Your task to perform on an android device: Go to Yahoo.com Image 0: 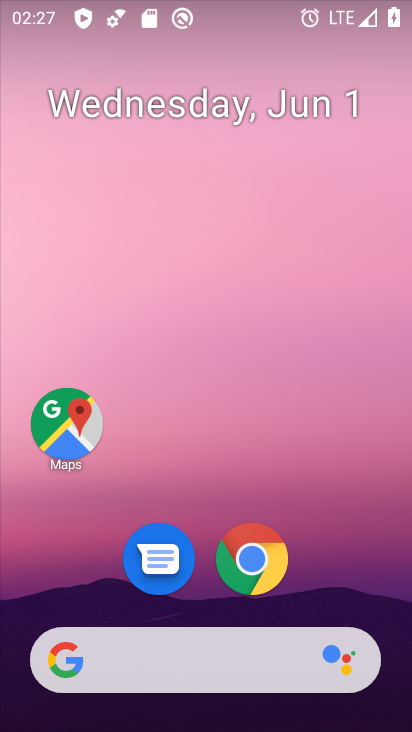
Step 0: press home button
Your task to perform on an android device: Go to Yahoo.com Image 1: 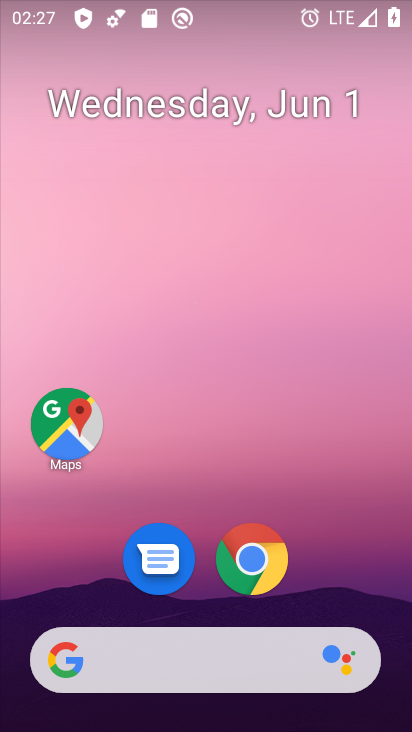
Step 1: click (58, 668)
Your task to perform on an android device: Go to Yahoo.com Image 2: 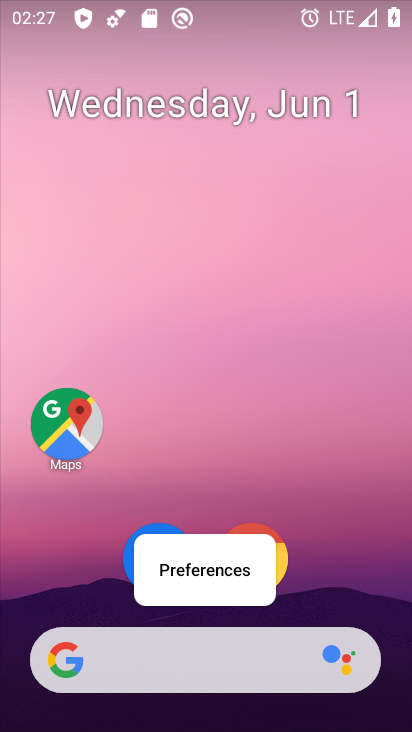
Step 2: click (60, 653)
Your task to perform on an android device: Go to Yahoo.com Image 3: 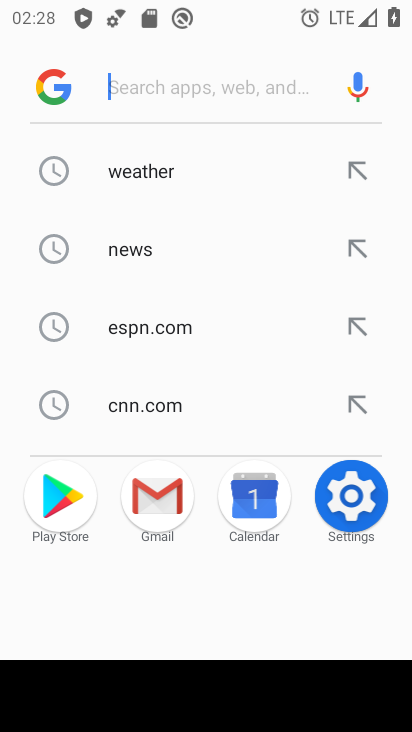
Step 3: type "Yahoo.com"
Your task to perform on an android device: Go to Yahoo.com Image 4: 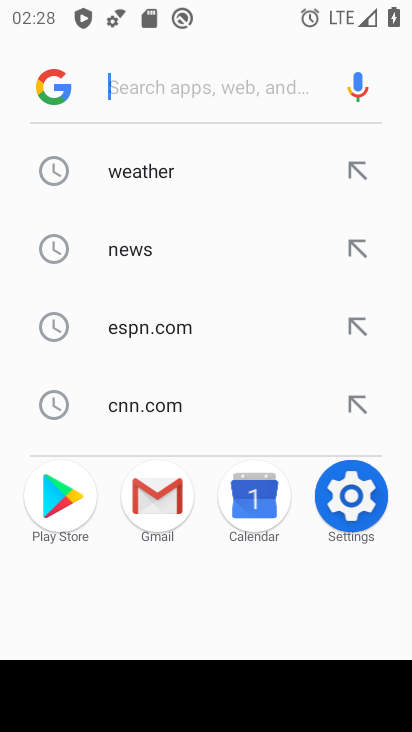
Step 4: click (216, 84)
Your task to perform on an android device: Go to Yahoo.com Image 5: 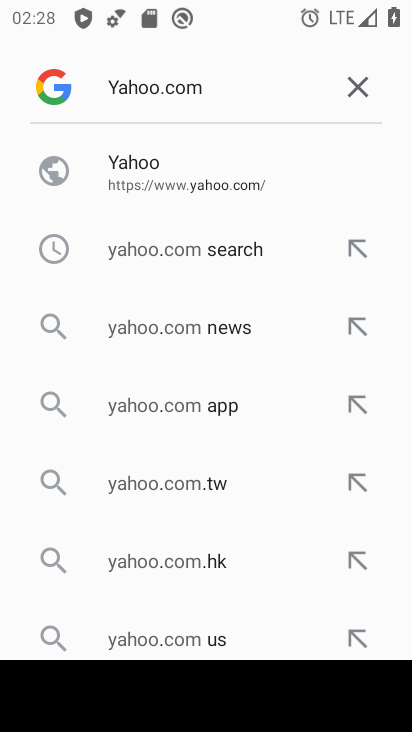
Step 5: click (135, 164)
Your task to perform on an android device: Go to Yahoo.com Image 6: 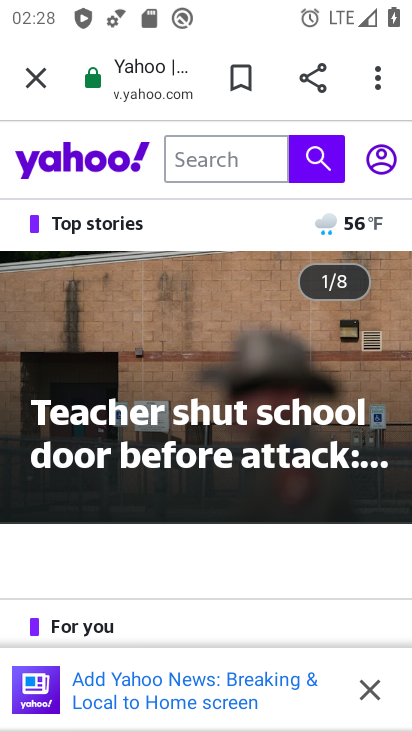
Step 6: task complete